Your task to perform on an android device: toggle data saver in the chrome app Image 0: 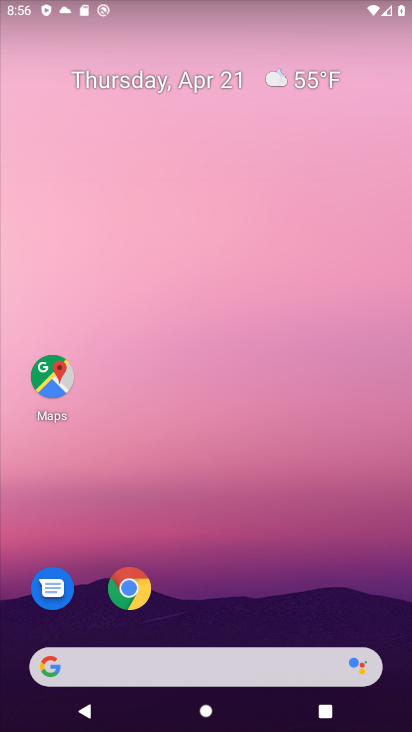
Step 0: drag from (245, 572) to (157, 58)
Your task to perform on an android device: toggle data saver in the chrome app Image 1: 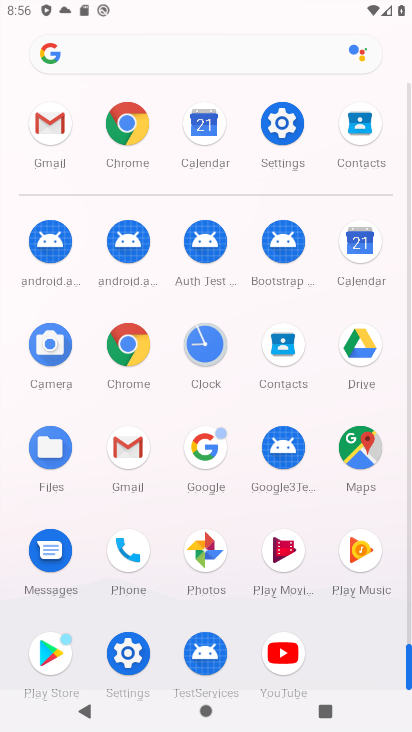
Step 1: click (125, 335)
Your task to perform on an android device: toggle data saver in the chrome app Image 2: 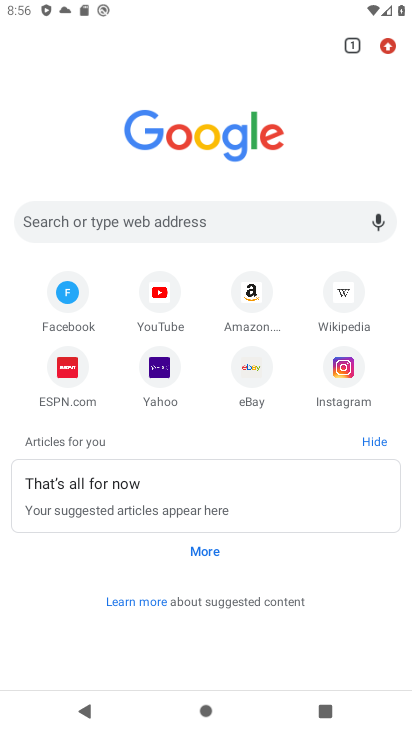
Step 2: drag from (389, 48) to (254, 438)
Your task to perform on an android device: toggle data saver in the chrome app Image 3: 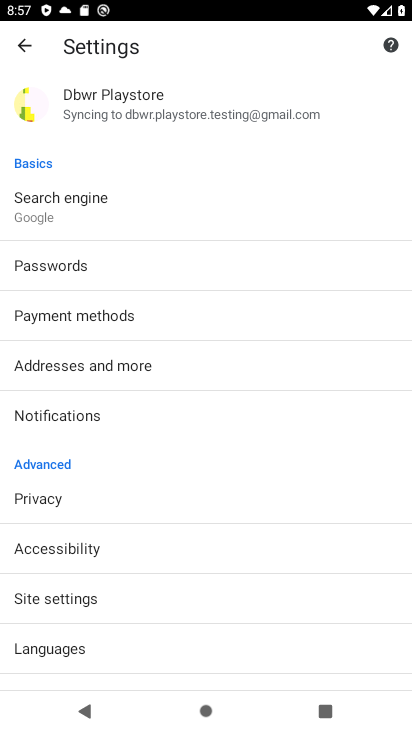
Step 3: click (82, 599)
Your task to perform on an android device: toggle data saver in the chrome app Image 4: 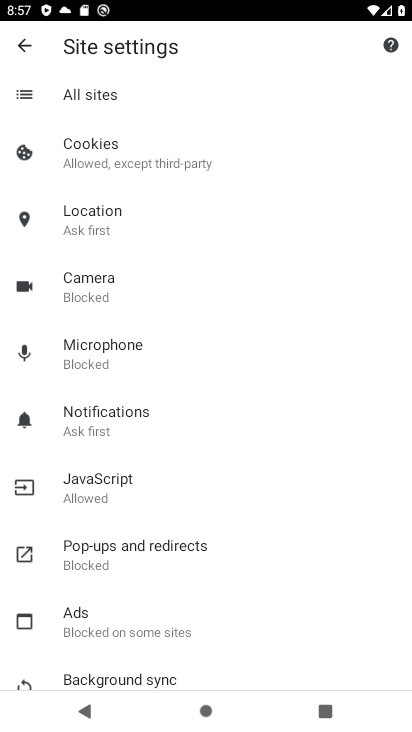
Step 4: click (19, 49)
Your task to perform on an android device: toggle data saver in the chrome app Image 5: 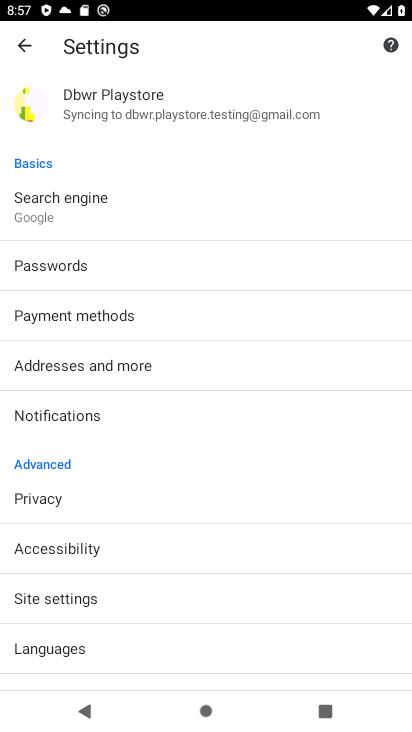
Step 5: drag from (235, 536) to (233, 282)
Your task to perform on an android device: toggle data saver in the chrome app Image 6: 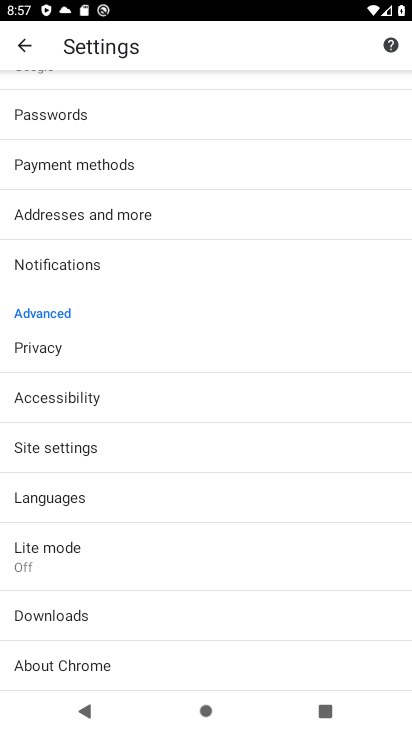
Step 6: click (101, 541)
Your task to perform on an android device: toggle data saver in the chrome app Image 7: 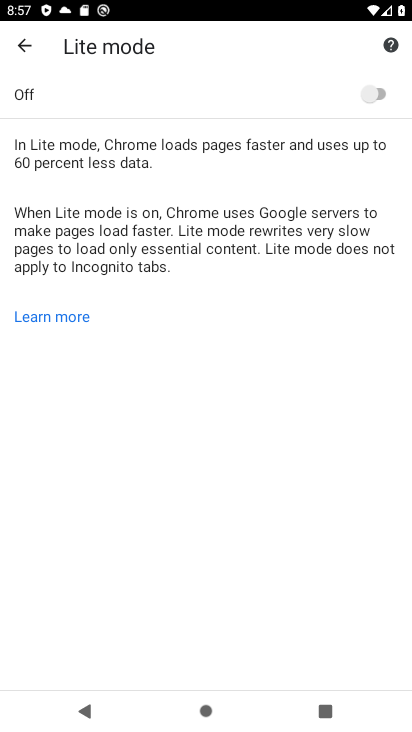
Step 7: click (379, 89)
Your task to perform on an android device: toggle data saver in the chrome app Image 8: 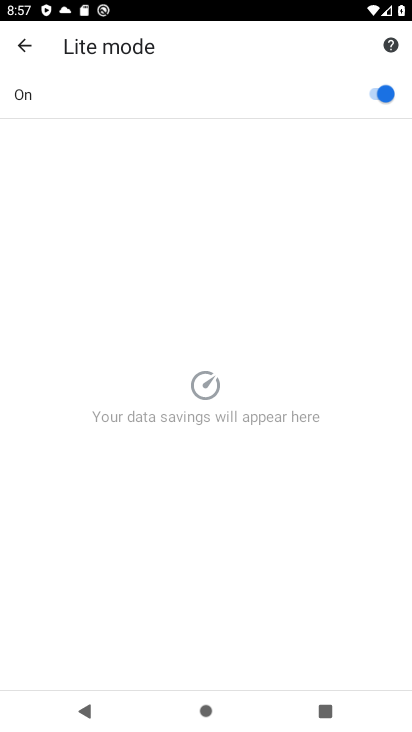
Step 8: task complete